Your task to perform on an android device: Turn on the flashlight Image 0: 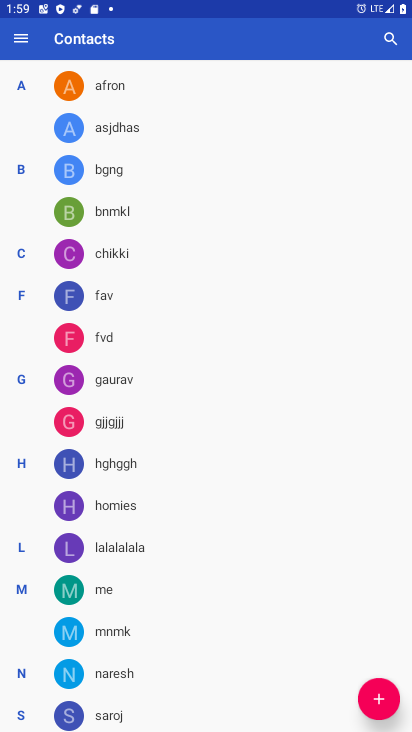
Step 0: press home button
Your task to perform on an android device: Turn on the flashlight Image 1: 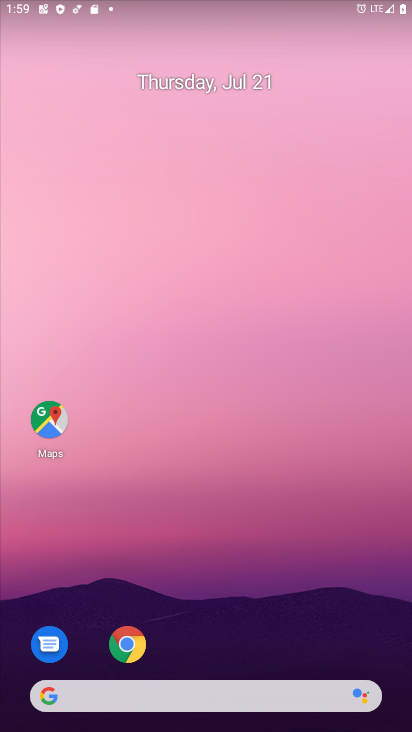
Step 1: drag from (188, 615) to (221, 161)
Your task to perform on an android device: Turn on the flashlight Image 2: 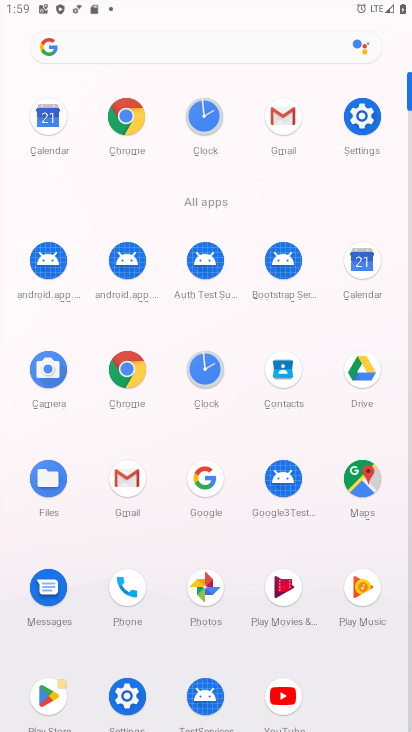
Step 2: drag from (245, 1) to (292, 353)
Your task to perform on an android device: Turn on the flashlight Image 3: 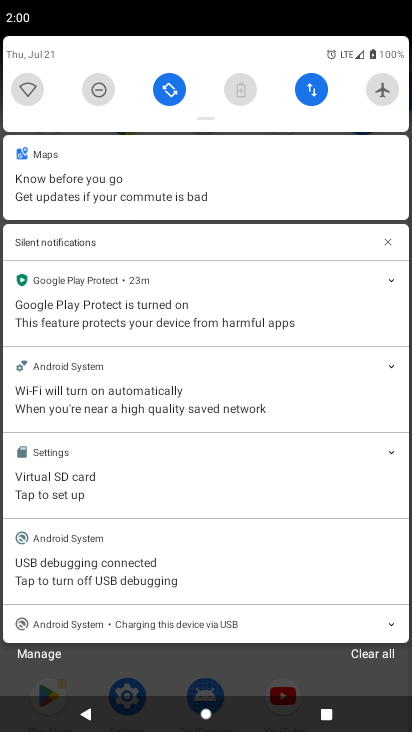
Step 3: drag from (300, 93) to (348, 449)
Your task to perform on an android device: Turn on the flashlight Image 4: 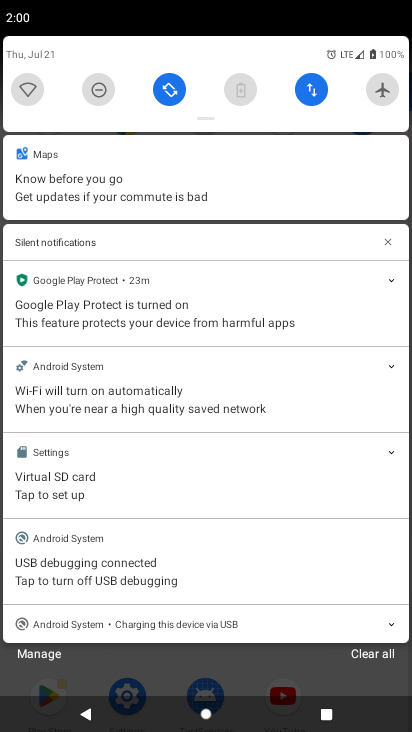
Step 4: drag from (240, 61) to (267, 356)
Your task to perform on an android device: Turn on the flashlight Image 5: 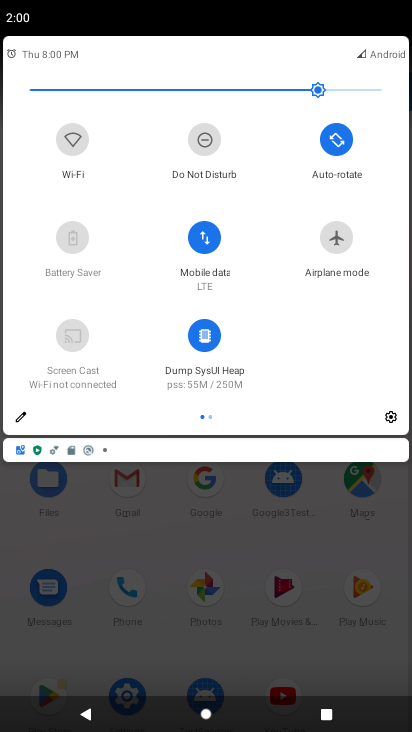
Step 5: drag from (331, 372) to (168, 354)
Your task to perform on an android device: Turn on the flashlight Image 6: 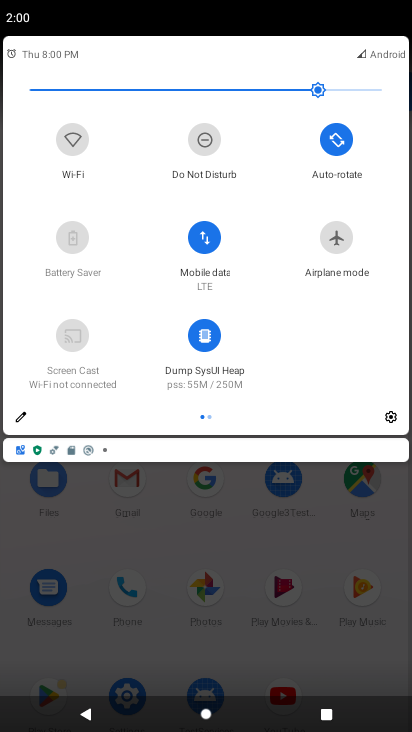
Step 6: click (22, 414)
Your task to perform on an android device: Turn on the flashlight Image 7: 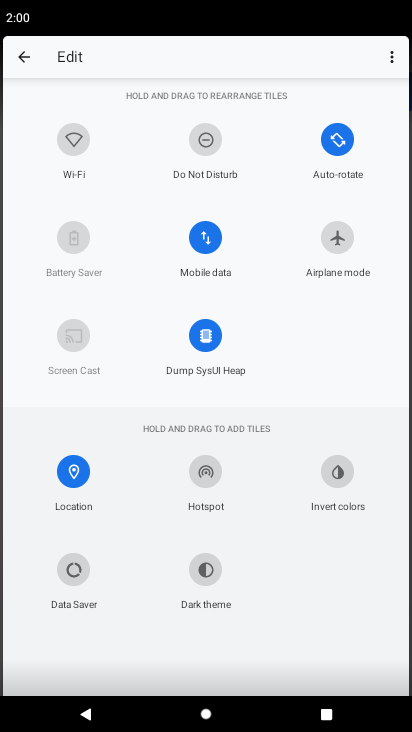
Step 7: task complete